Your task to perform on an android device: all mails in gmail Image 0: 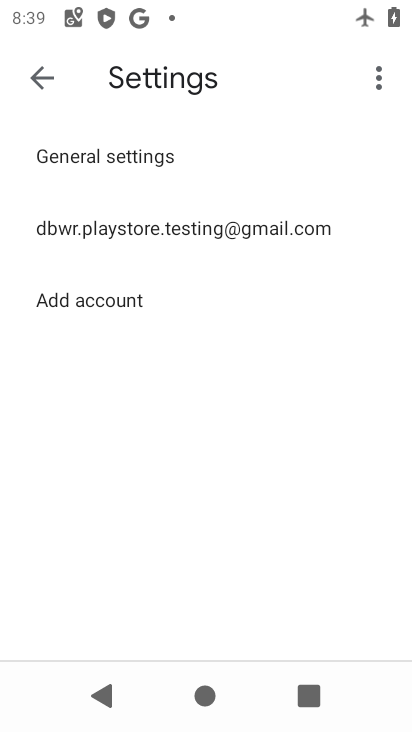
Step 0: press home button
Your task to perform on an android device: all mails in gmail Image 1: 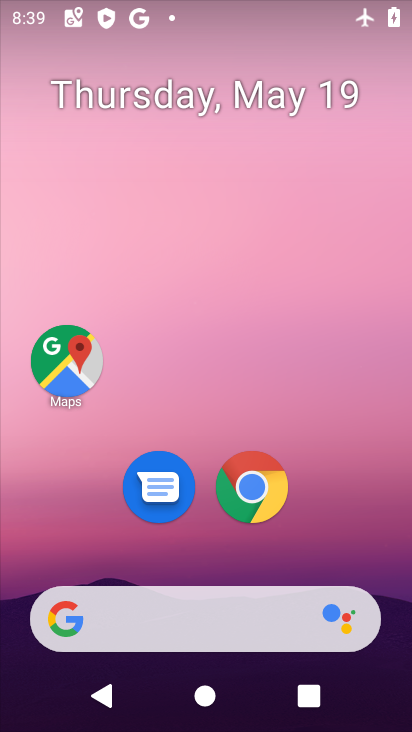
Step 1: drag from (198, 562) to (364, 484)
Your task to perform on an android device: all mails in gmail Image 2: 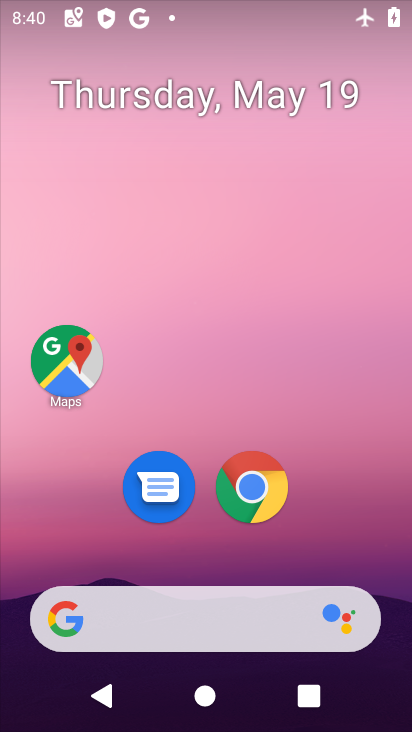
Step 2: drag from (196, 562) to (149, 0)
Your task to perform on an android device: all mails in gmail Image 3: 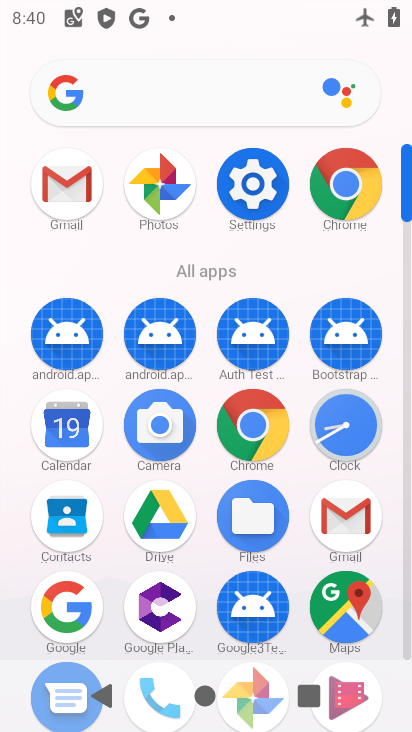
Step 3: click (349, 519)
Your task to perform on an android device: all mails in gmail Image 4: 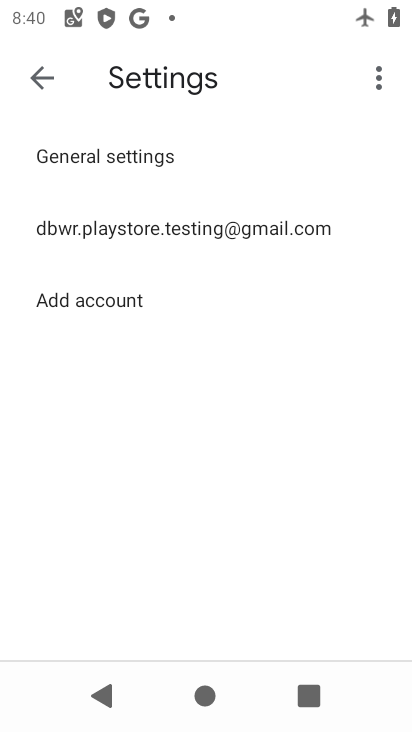
Step 4: click (84, 220)
Your task to perform on an android device: all mails in gmail Image 5: 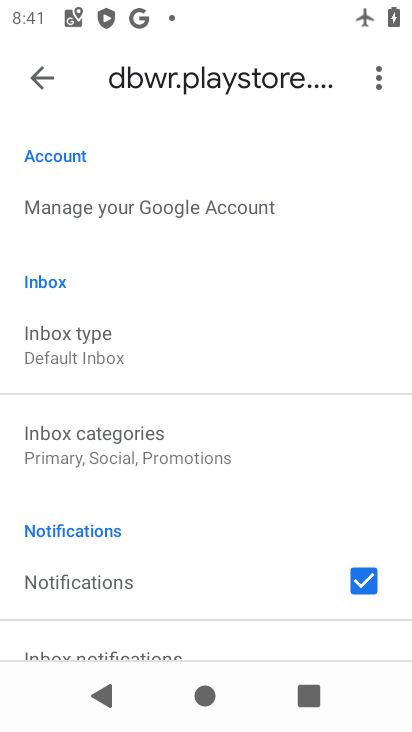
Step 5: click (45, 94)
Your task to perform on an android device: all mails in gmail Image 6: 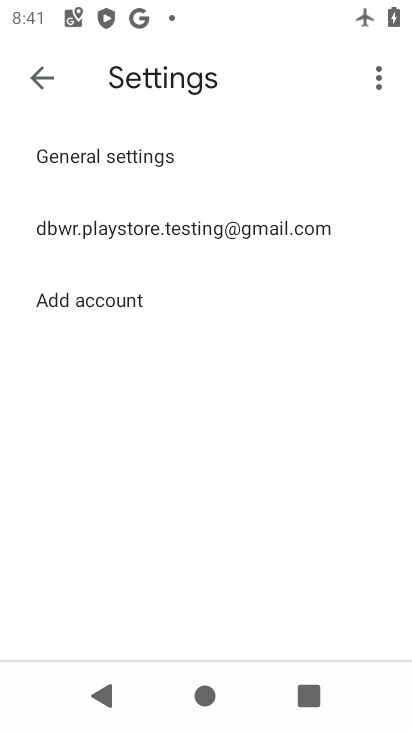
Step 6: click (47, 88)
Your task to perform on an android device: all mails in gmail Image 7: 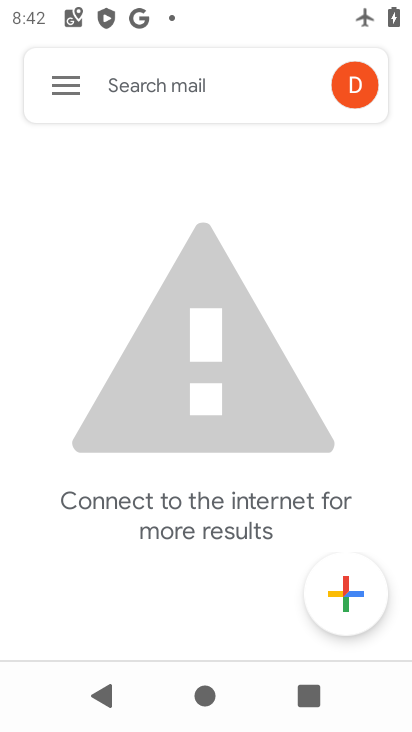
Step 7: click (58, 81)
Your task to perform on an android device: all mails in gmail Image 8: 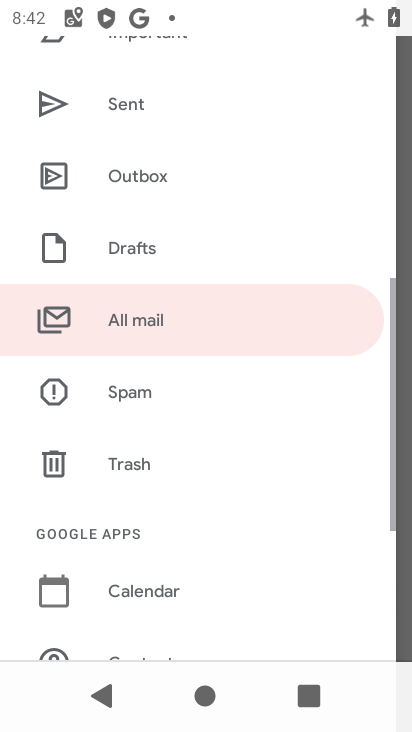
Step 8: click (158, 306)
Your task to perform on an android device: all mails in gmail Image 9: 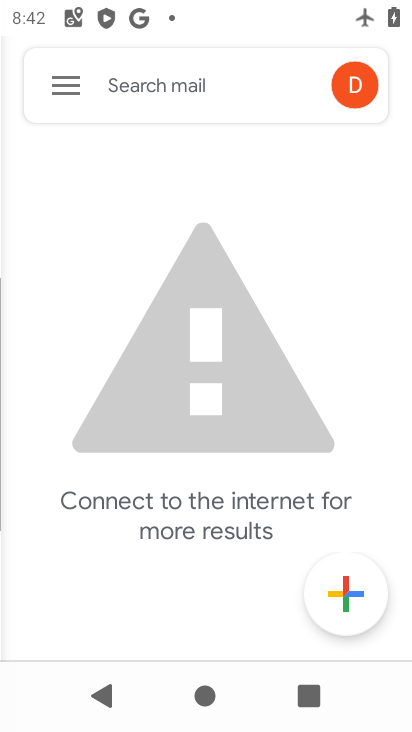
Step 9: task complete